Your task to perform on an android device: toggle priority inbox in the gmail app Image 0: 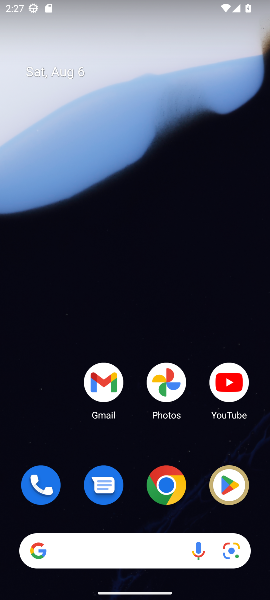
Step 0: click (100, 378)
Your task to perform on an android device: toggle priority inbox in the gmail app Image 1: 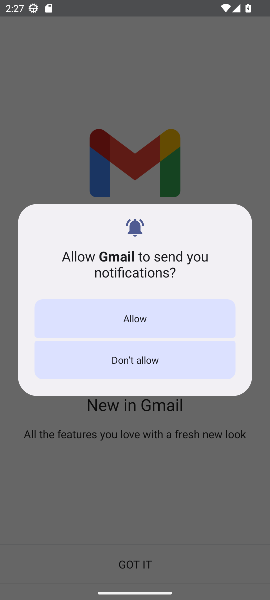
Step 1: click (135, 317)
Your task to perform on an android device: toggle priority inbox in the gmail app Image 2: 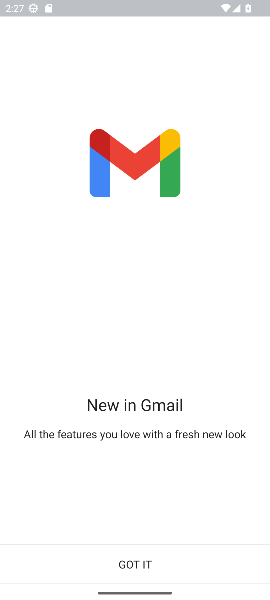
Step 2: click (131, 561)
Your task to perform on an android device: toggle priority inbox in the gmail app Image 3: 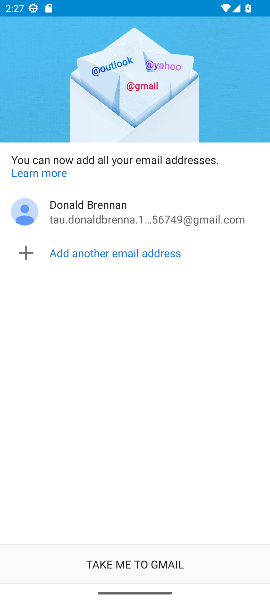
Step 3: click (133, 567)
Your task to perform on an android device: toggle priority inbox in the gmail app Image 4: 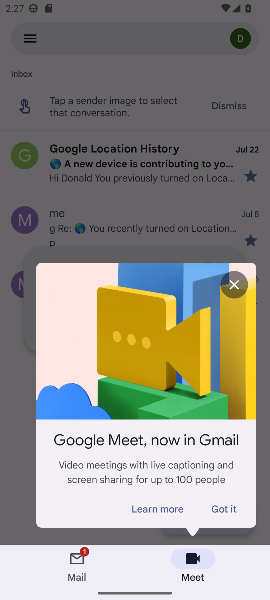
Step 4: click (222, 507)
Your task to perform on an android device: toggle priority inbox in the gmail app Image 5: 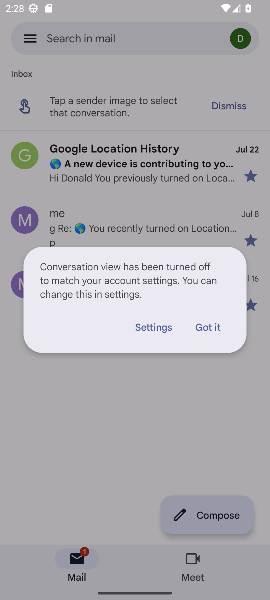
Step 5: click (205, 327)
Your task to perform on an android device: toggle priority inbox in the gmail app Image 6: 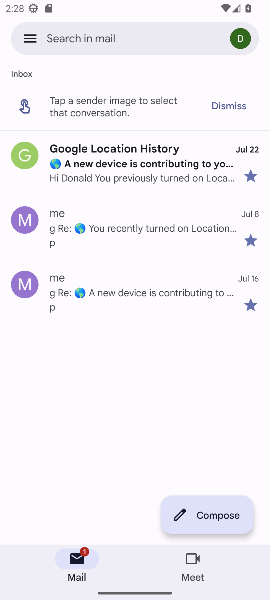
Step 6: click (27, 29)
Your task to perform on an android device: toggle priority inbox in the gmail app Image 7: 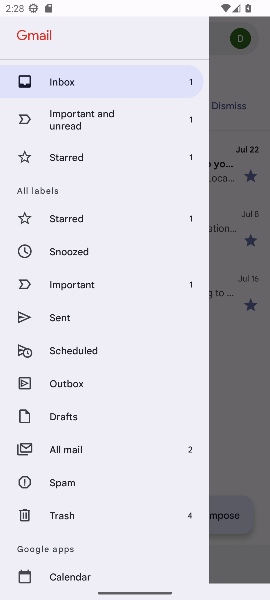
Step 7: drag from (112, 545) to (118, 112)
Your task to perform on an android device: toggle priority inbox in the gmail app Image 8: 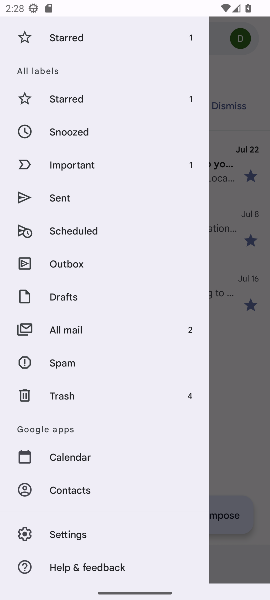
Step 8: click (94, 532)
Your task to perform on an android device: toggle priority inbox in the gmail app Image 9: 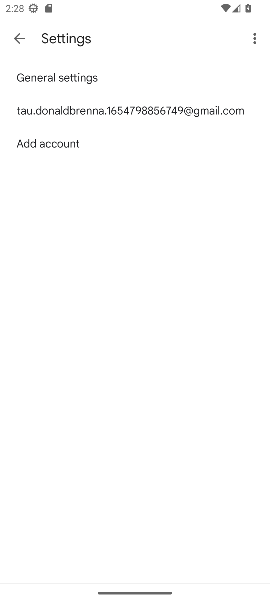
Step 9: click (99, 109)
Your task to perform on an android device: toggle priority inbox in the gmail app Image 10: 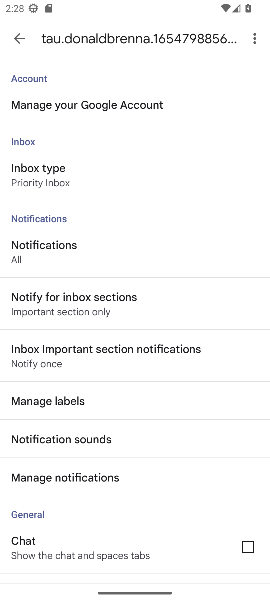
Step 10: click (80, 170)
Your task to perform on an android device: toggle priority inbox in the gmail app Image 11: 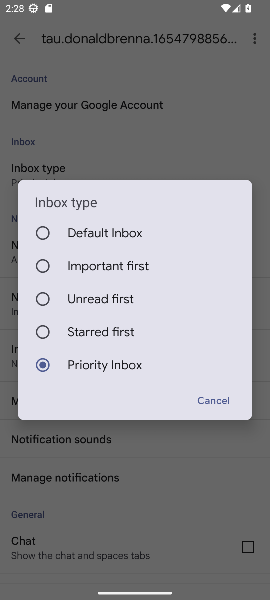
Step 11: click (59, 362)
Your task to perform on an android device: toggle priority inbox in the gmail app Image 12: 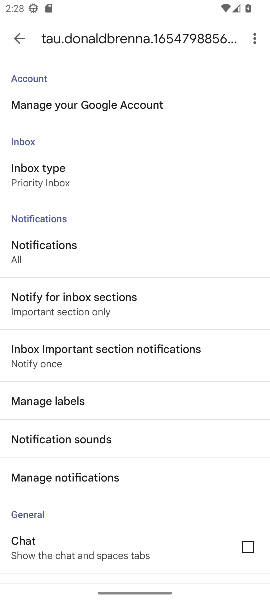
Step 12: task complete